Your task to perform on an android device: toggle notification dots Image 0: 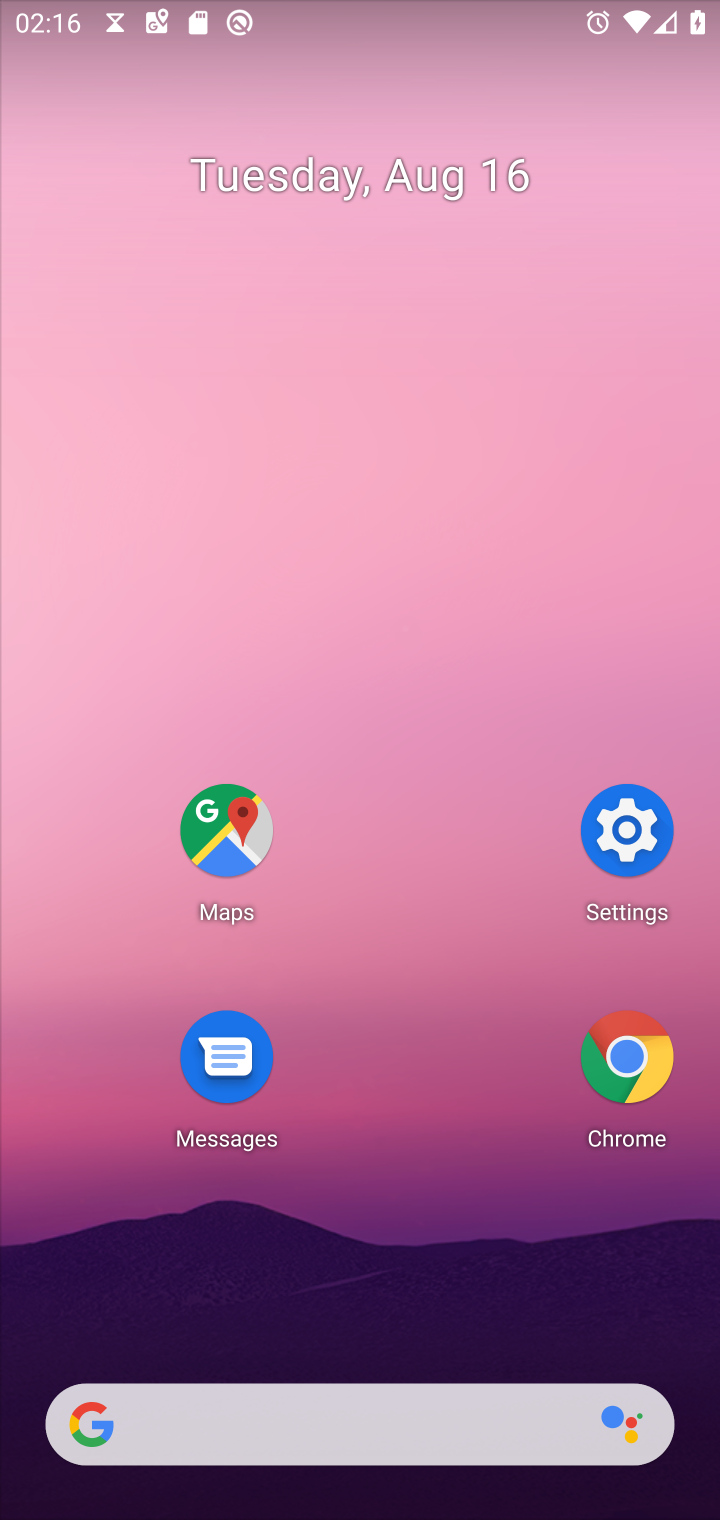
Step 0: press home button
Your task to perform on an android device: toggle notification dots Image 1: 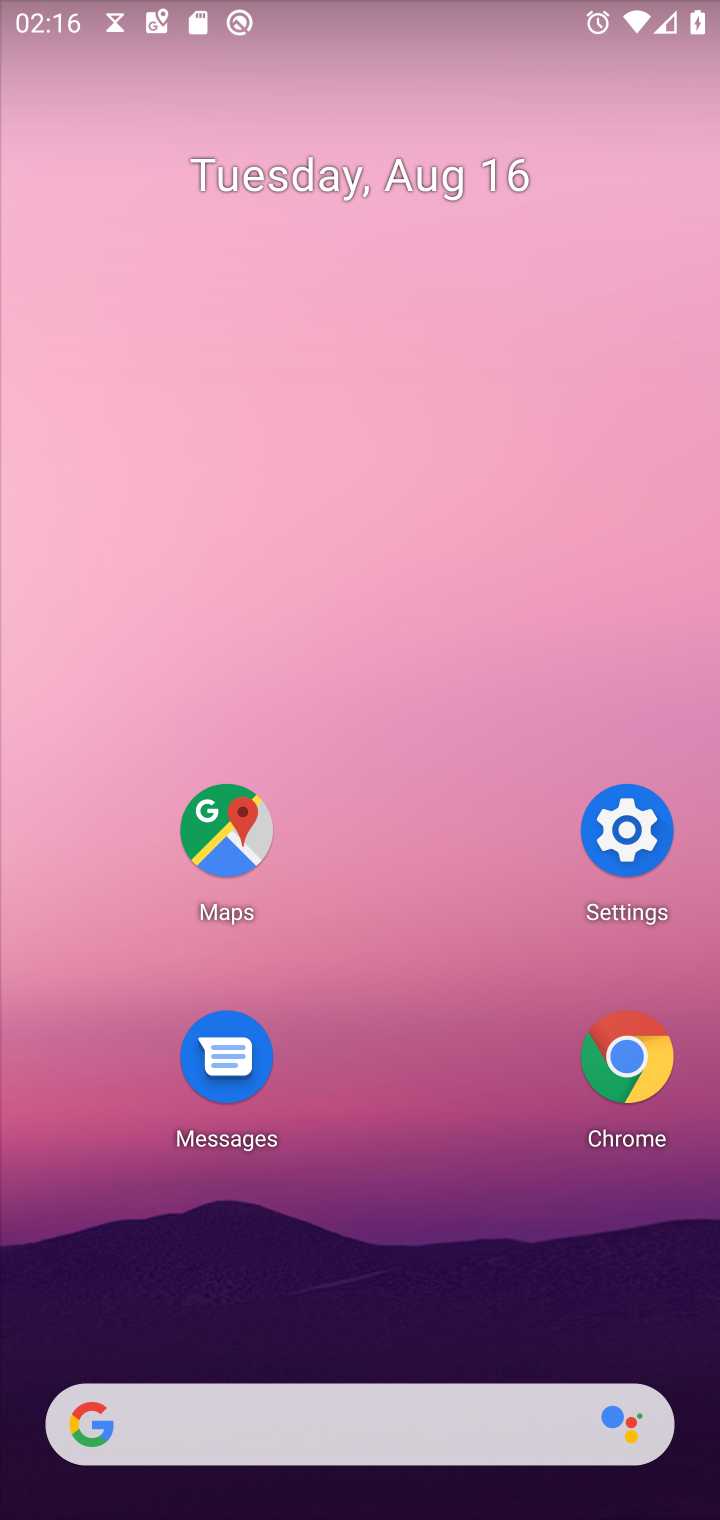
Step 1: click (625, 828)
Your task to perform on an android device: toggle notification dots Image 2: 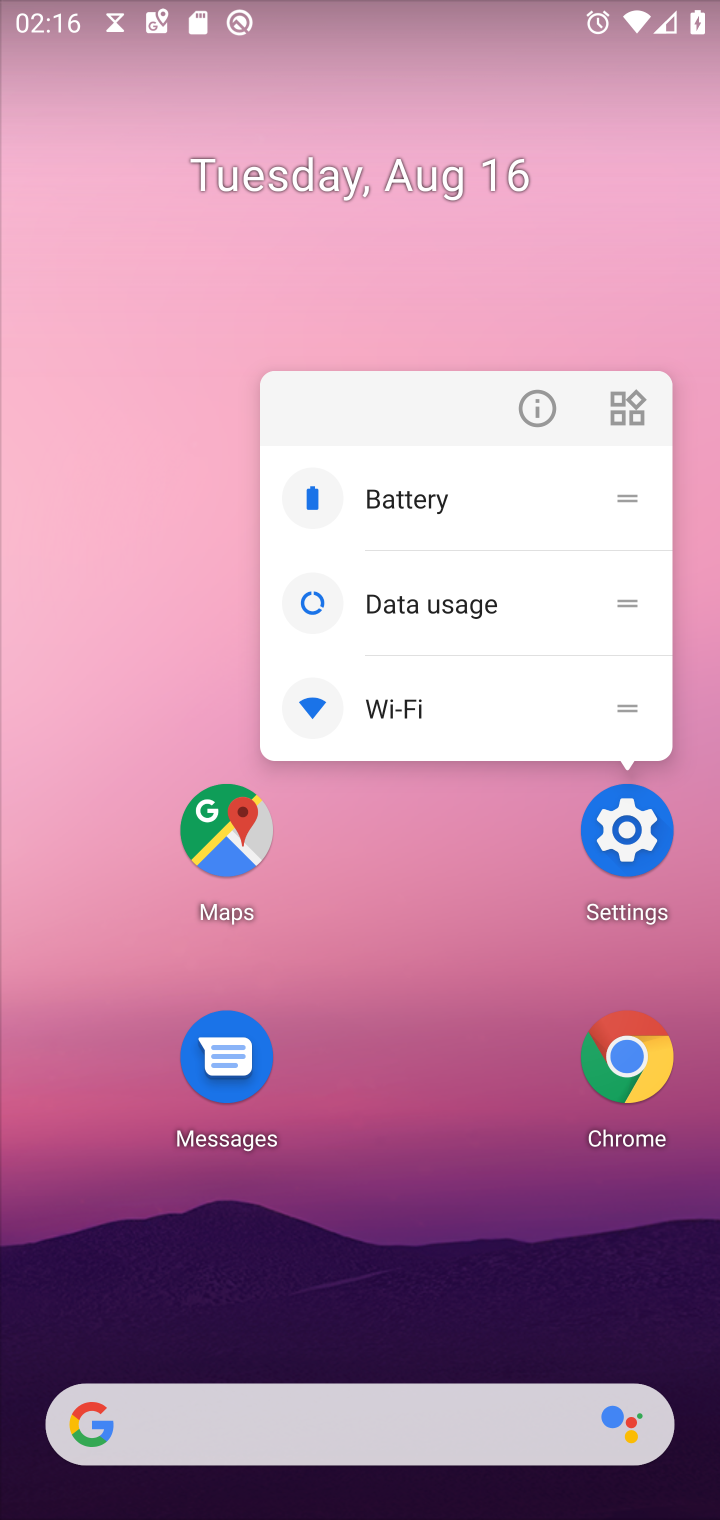
Step 2: click (625, 841)
Your task to perform on an android device: toggle notification dots Image 3: 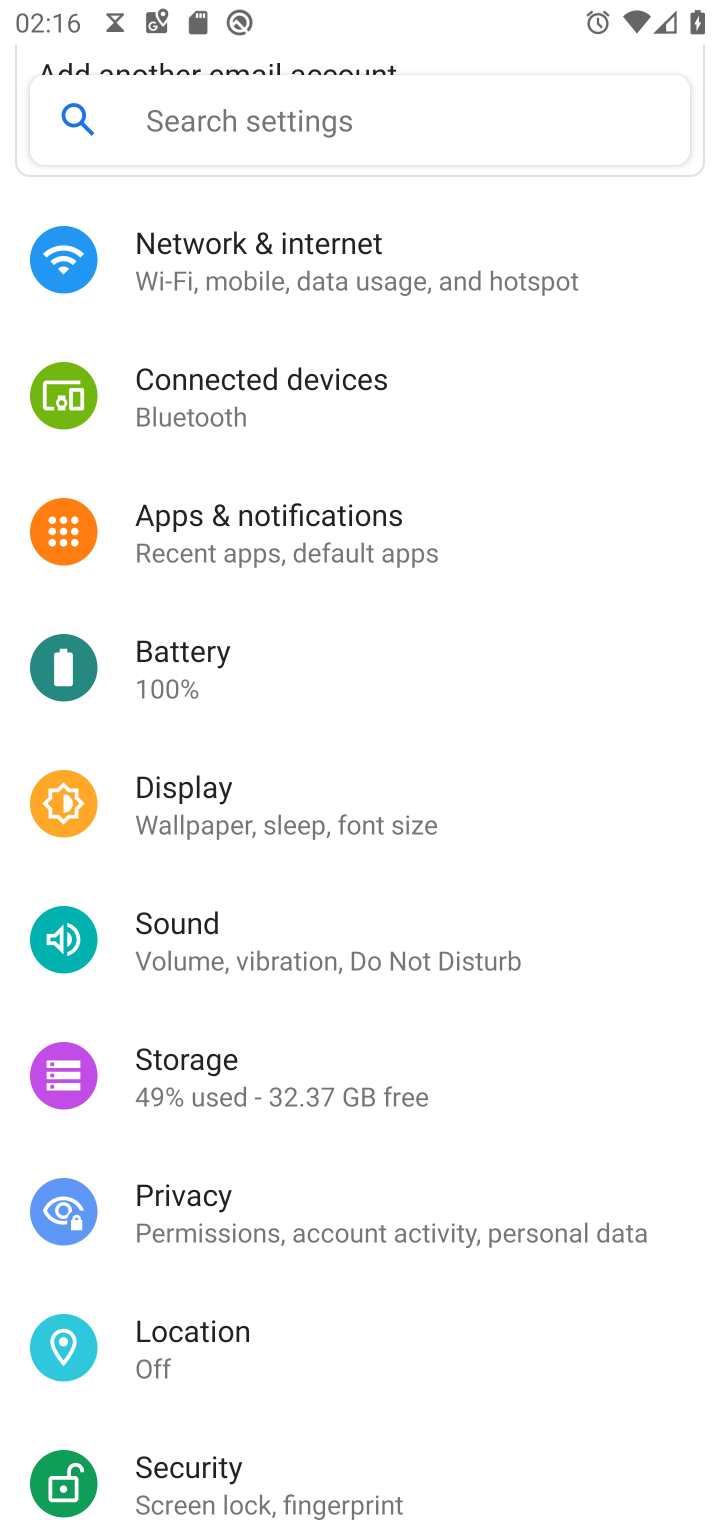
Step 3: click (308, 539)
Your task to perform on an android device: toggle notification dots Image 4: 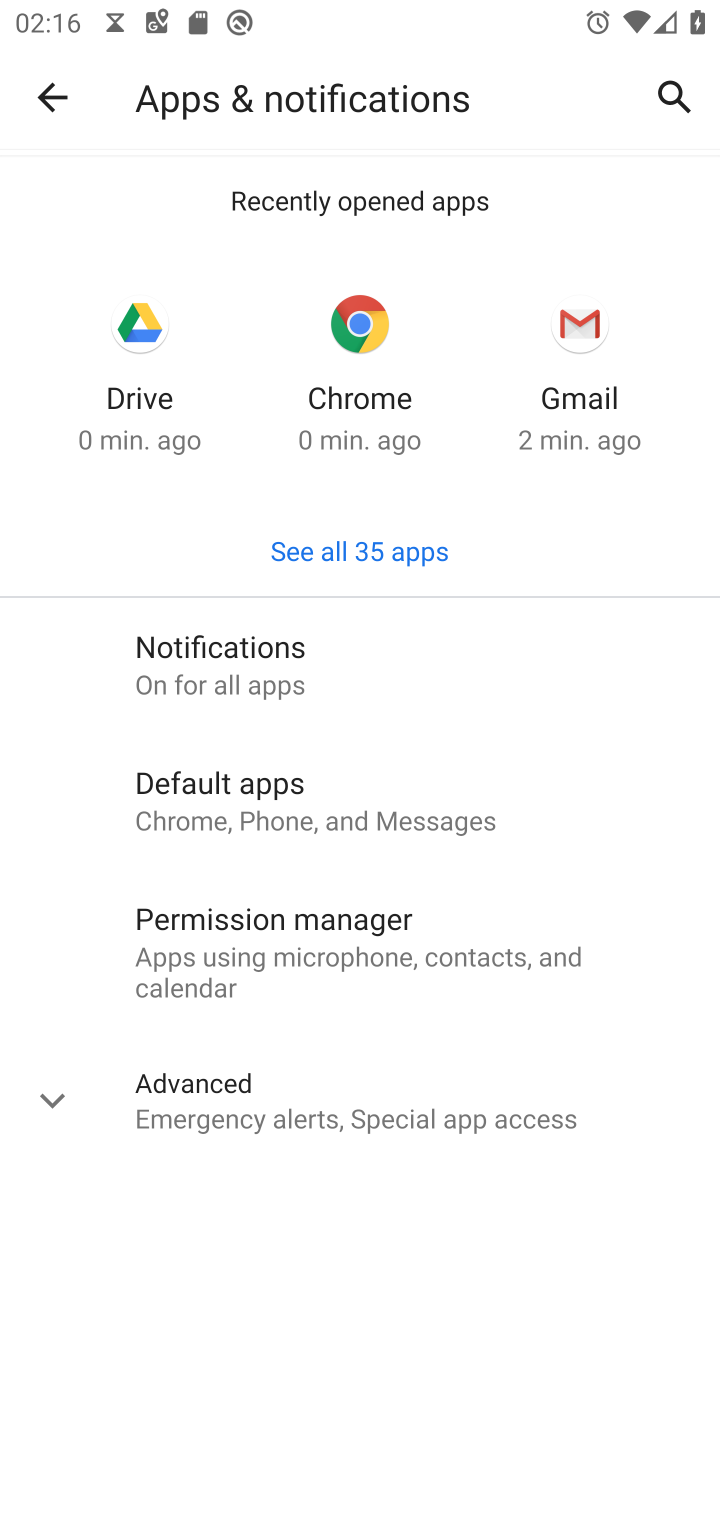
Step 4: click (229, 662)
Your task to perform on an android device: toggle notification dots Image 5: 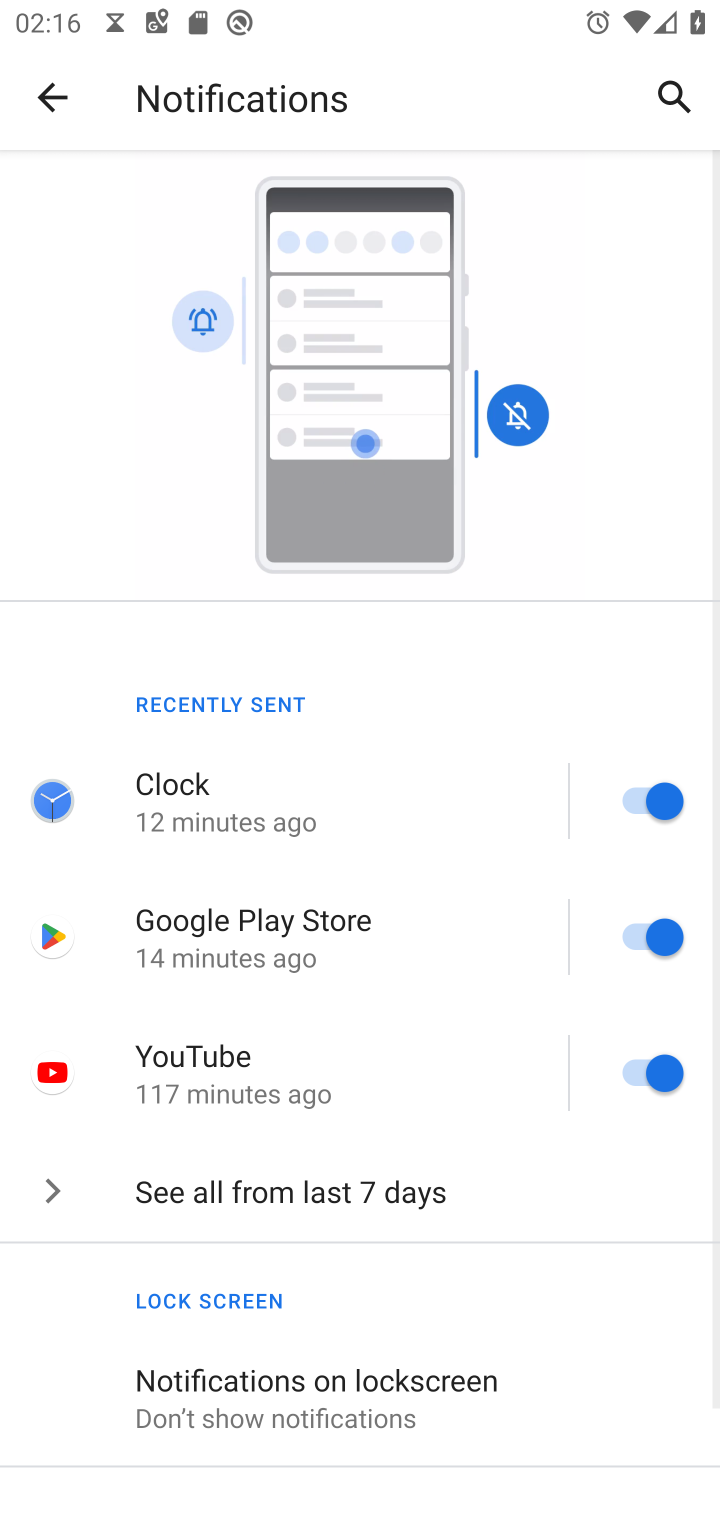
Step 5: drag from (433, 1266) to (704, 141)
Your task to perform on an android device: toggle notification dots Image 6: 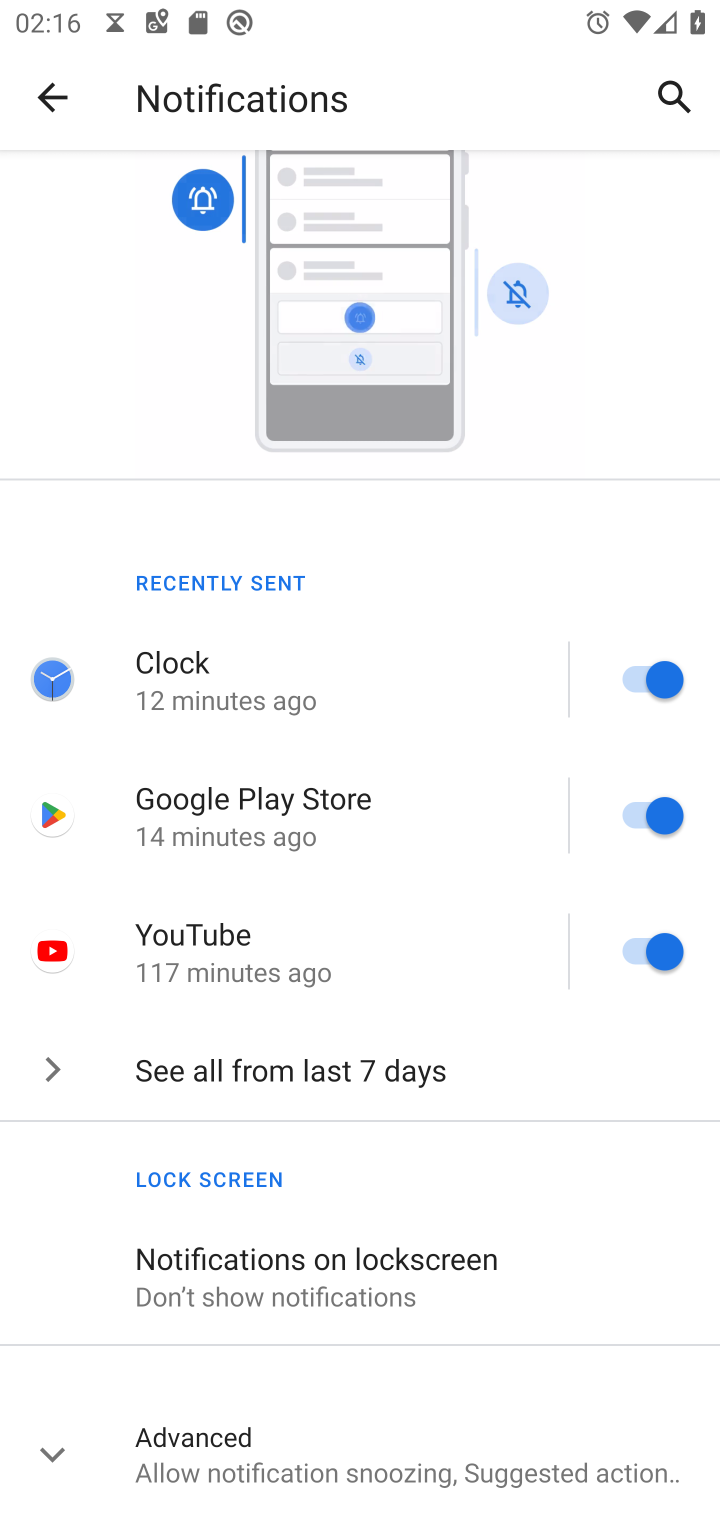
Step 6: click (362, 1445)
Your task to perform on an android device: toggle notification dots Image 7: 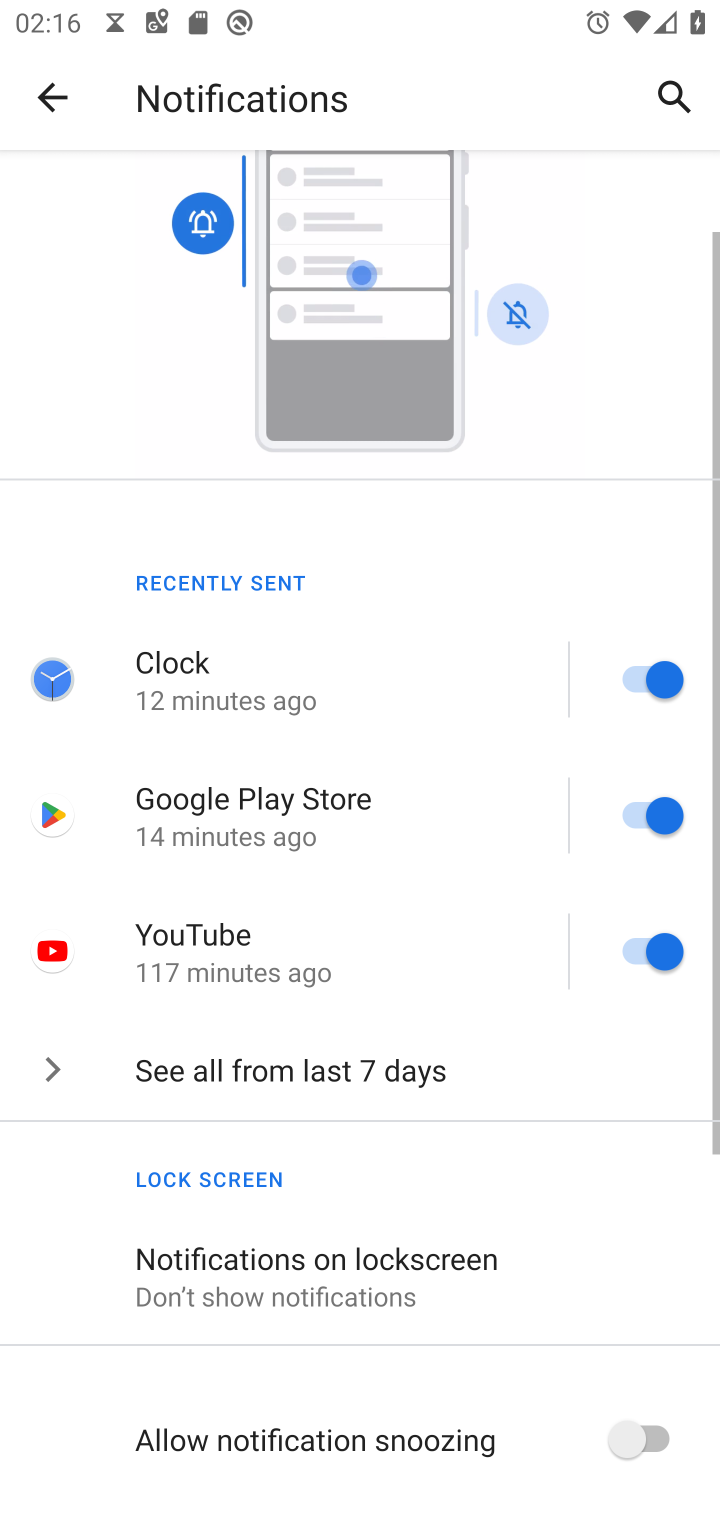
Step 7: drag from (370, 1367) to (714, 290)
Your task to perform on an android device: toggle notification dots Image 8: 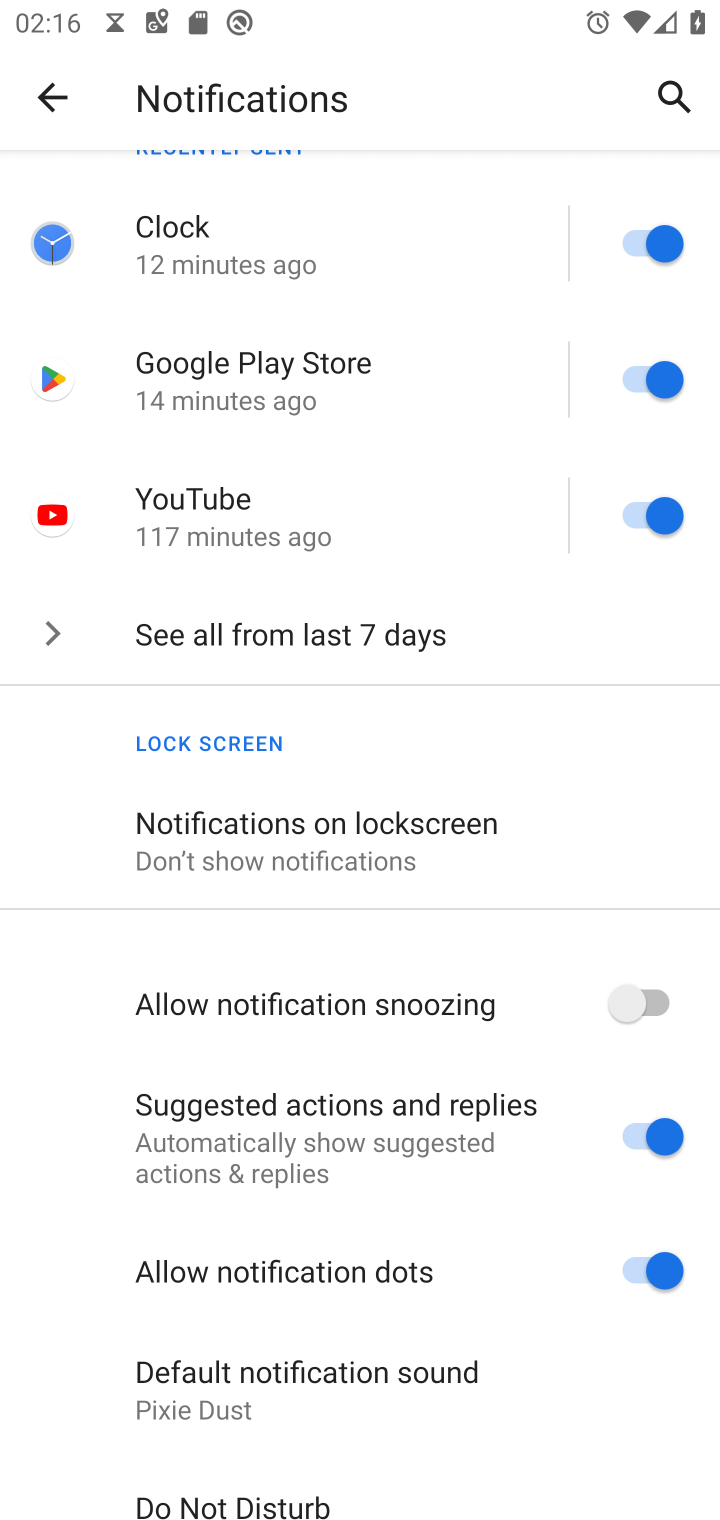
Step 8: click (637, 1262)
Your task to perform on an android device: toggle notification dots Image 9: 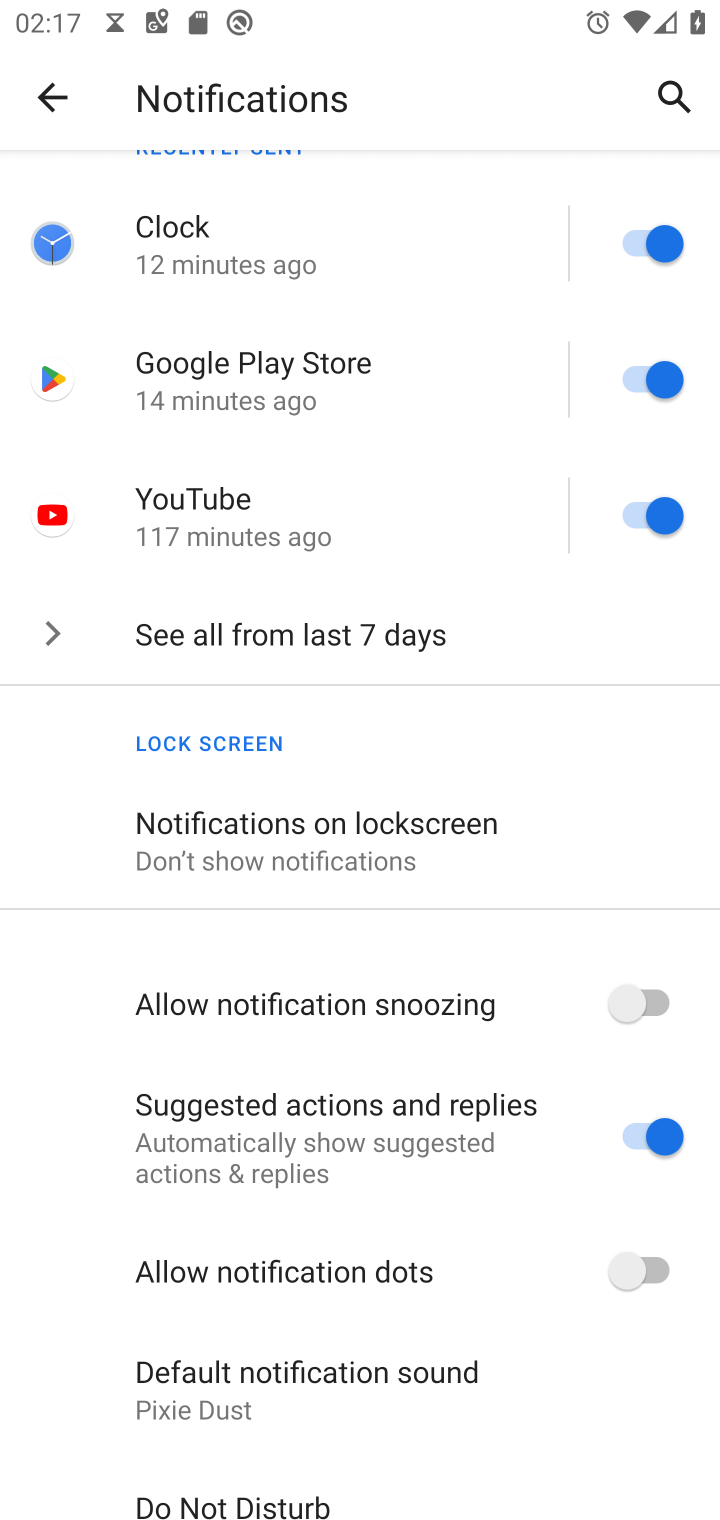
Step 9: task complete